Your task to perform on an android device: open chrome privacy settings Image 0: 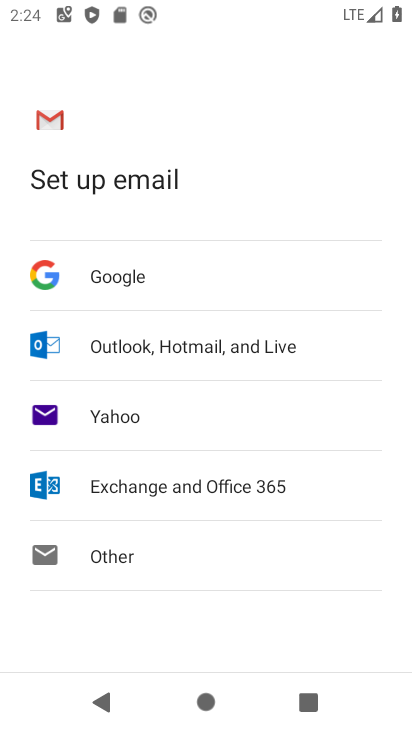
Step 0: press home button
Your task to perform on an android device: open chrome privacy settings Image 1: 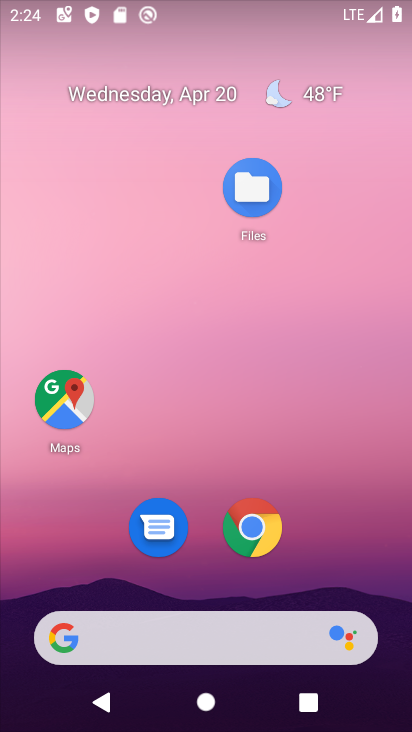
Step 1: click (250, 538)
Your task to perform on an android device: open chrome privacy settings Image 2: 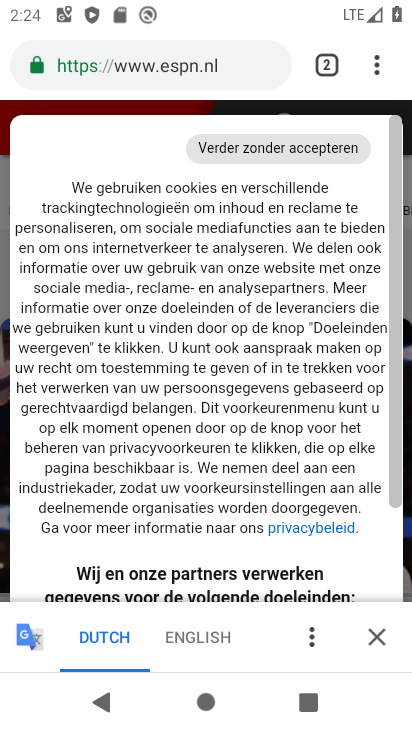
Step 2: click (375, 65)
Your task to perform on an android device: open chrome privacy settings Image 3: 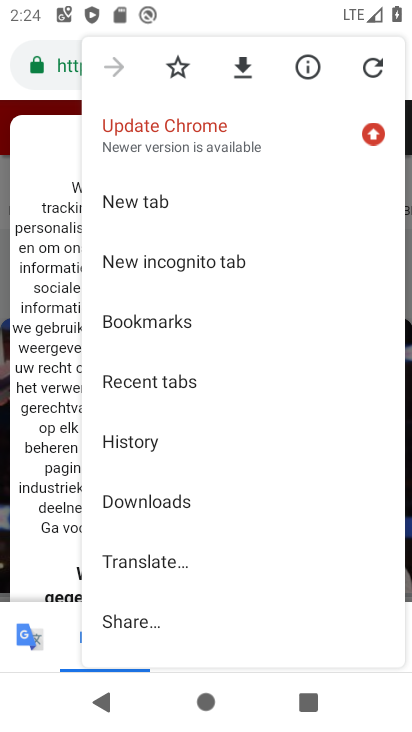
Step 3: drag from (153, 530) to (190, 159)
Your task to perform on an android device: open chrome privacy settings Image 4: 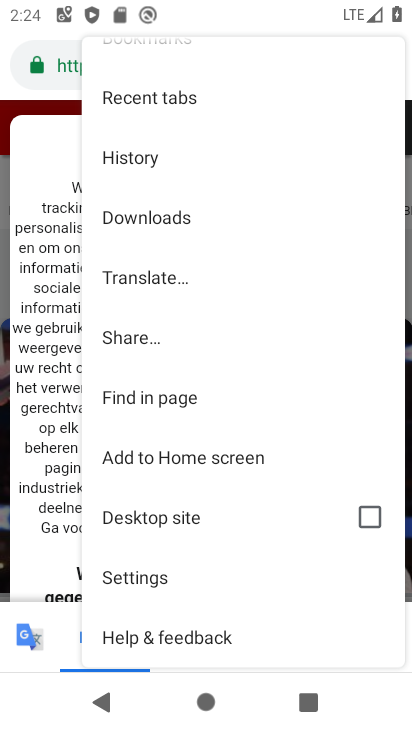
Step 4: click (156, 569)
Your task to perform on an android device: open chrome privacy settings Image 5: 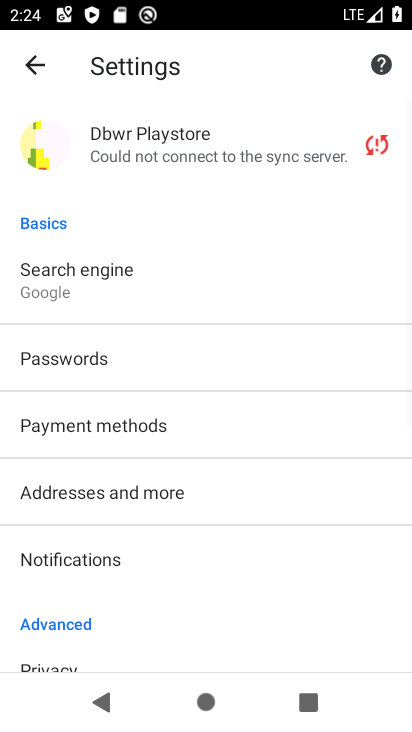
Step 5: drag from (156, 569) to (275, 108)
Your task to perform on an android device: open chrome privacy settings Image 6: 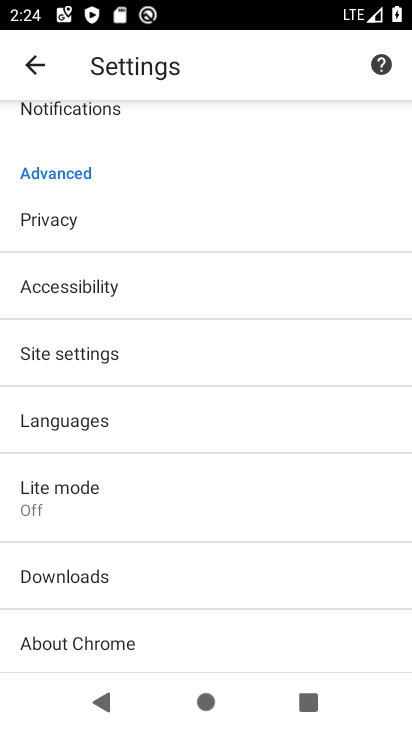
Step 6: click (150, 214)
Your task to perform on an android device: open chrome privacy settings Image 7: 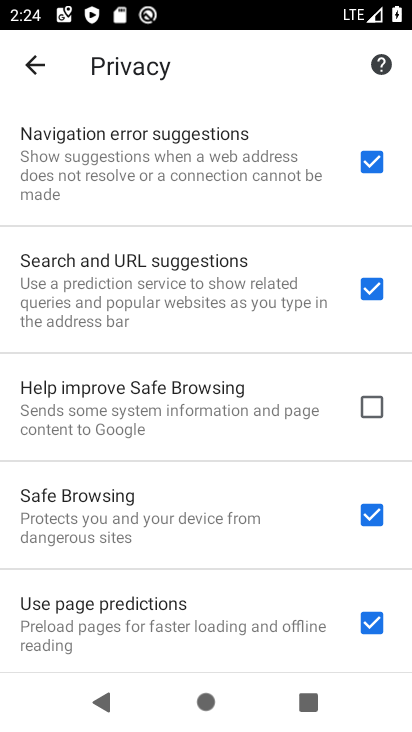
Step 7: task complete